Your task to perform on an android device: What's the weather going to be this weekend? Image 0: 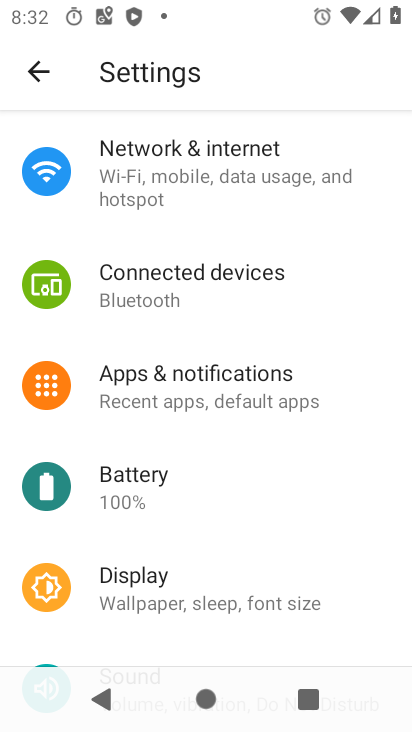
Step 0: press home button
Your task to perform on an android device: What's the weather going to be this weekend? Image 1: 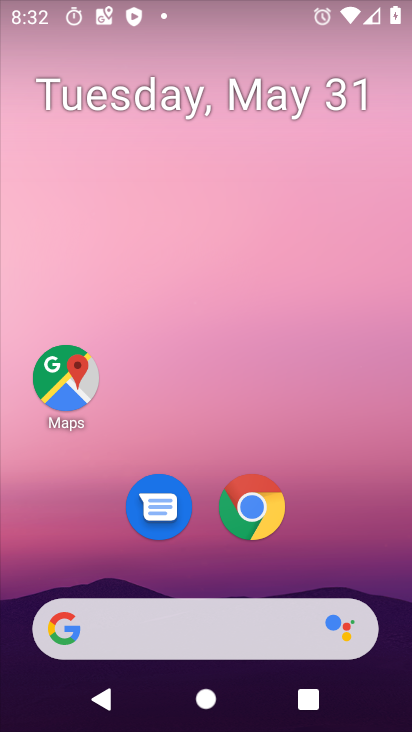
Step 1: click (110, 632)
Your task to perform on an android device: What's the weather going to be this weekend? Image 2: 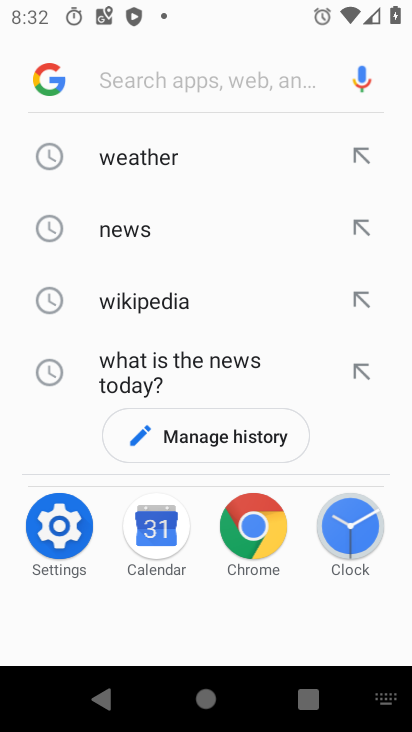
Step 2: click (132, 165)
Your task to perform on an android device: What's the weather going to be this weekend? Image 3: 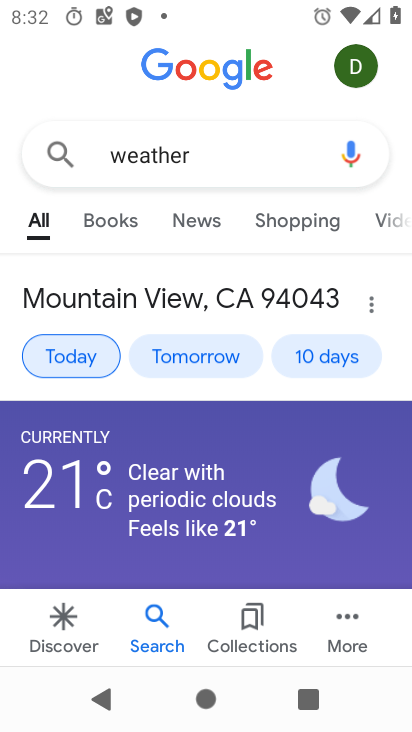
Step 3: click (308, 362)
Your task to perform on an android device: What's the weather going to be this weekend? Image 4: 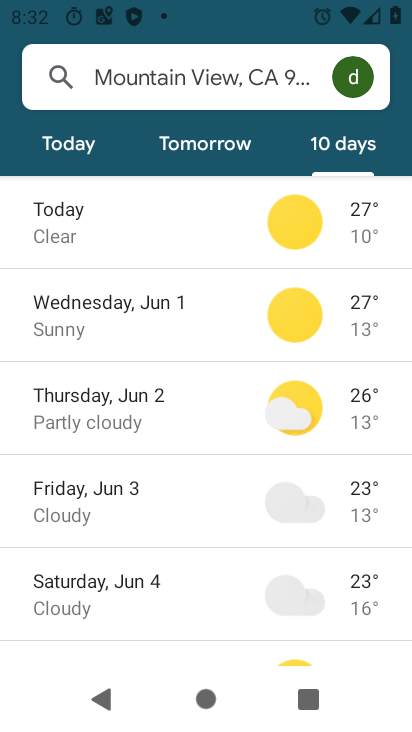
Step 4: task complete